Your task to perform on an android device: change your default location settings in chrome Image 0: 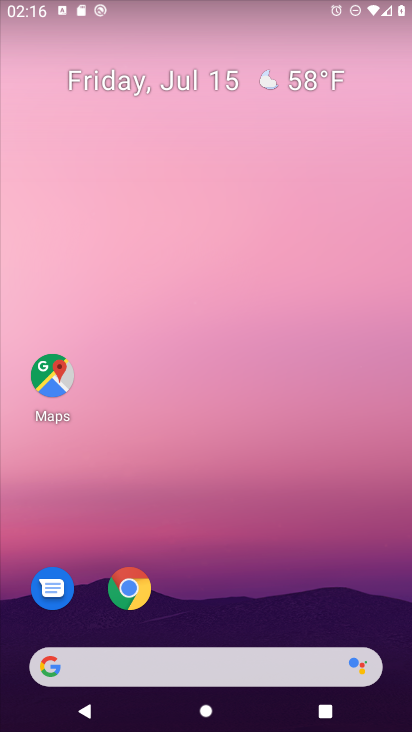
Step 0: click (134, 590)
Your task to perform on an android device: change your default location settings in chrome Image 1: 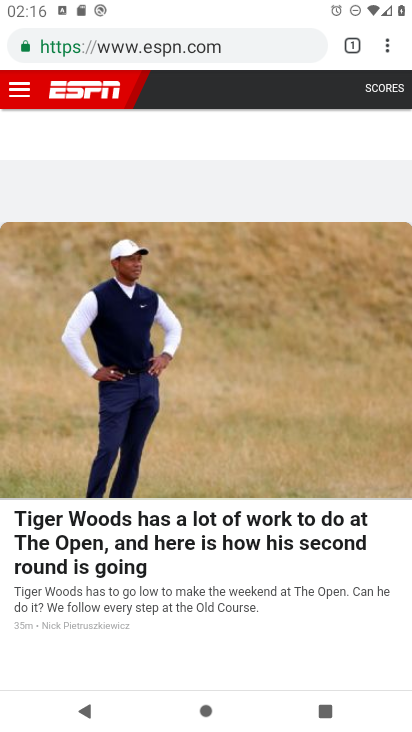
Step 1: click (383, 48)
Your task to perform on an android device: change your default location settings in chrome Image 2: 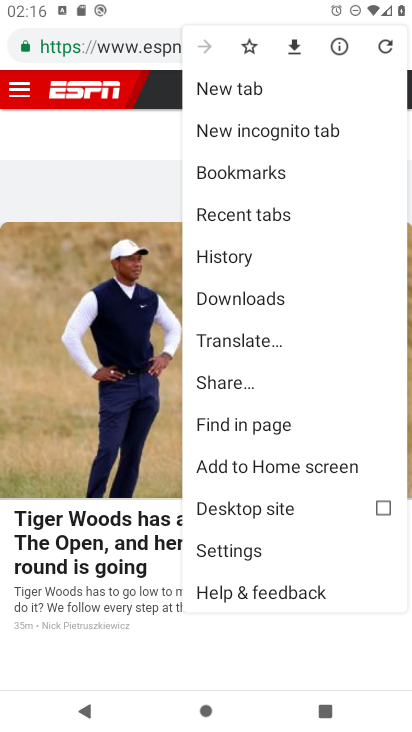
Step 2: click (240, 549)
Your task to perform on an android device: change your default location settings in chrome Image 3: 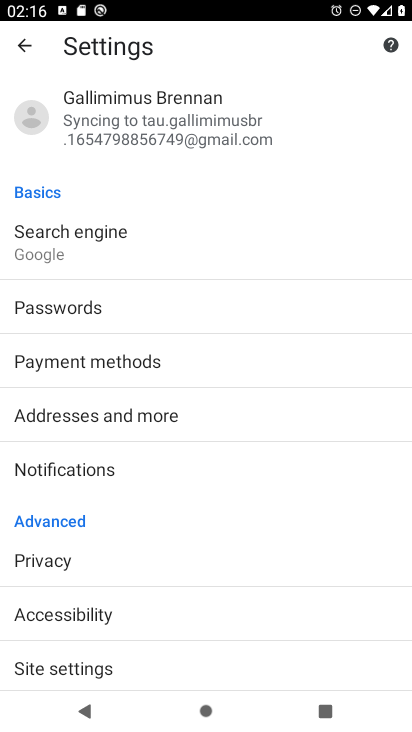
Step 3: drag from (218, 623) to (194, 261)
Your task to perform on an android device: change your default location settings in chrome Image 4: 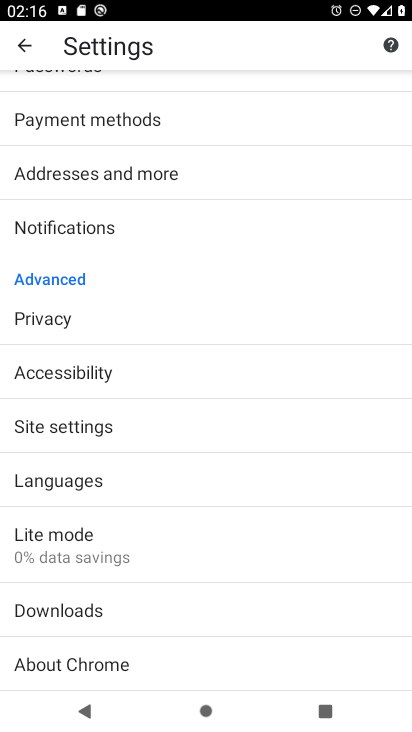
Step 4: click (44, 429)
Your task to perform on an android device: change your default location settings in chrome Image 5: 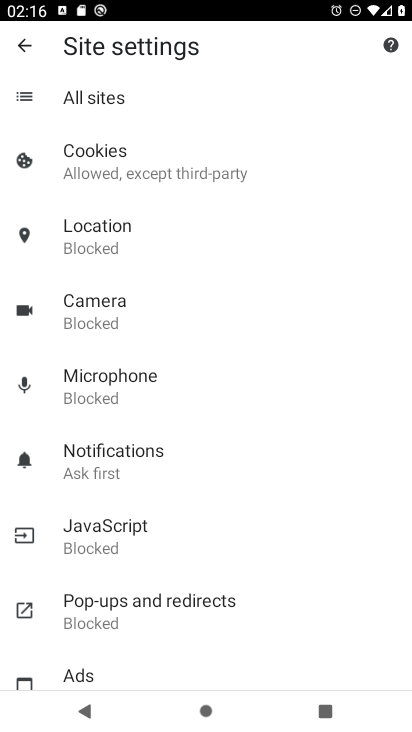
Step 5: click (74, 230)
Your task to perform on an android device: change your default location settings in chrome Image 6: 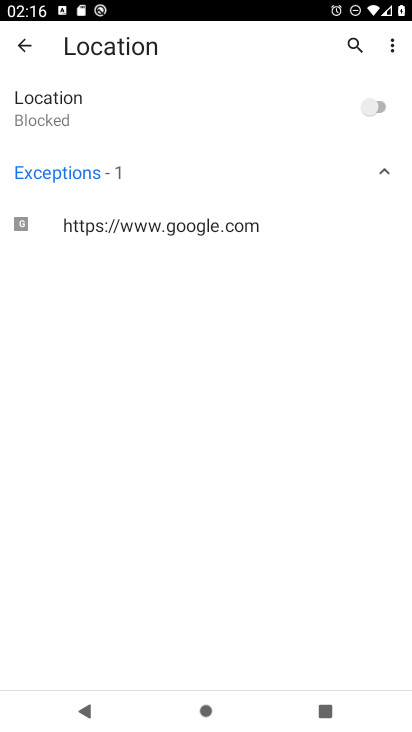
Step 6: click (381, 112)
Your task to perform on an android device: change your default location settings in chrome Image 7: 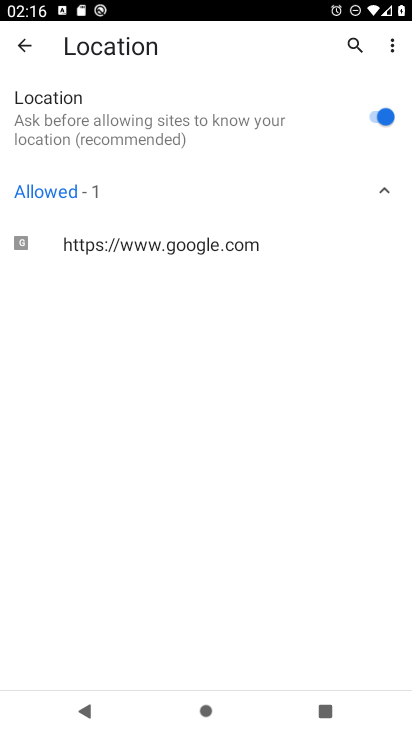
Step 7: task complete